Your task to perform on an android device: toggle notifications settings in the gmail app Image 0: 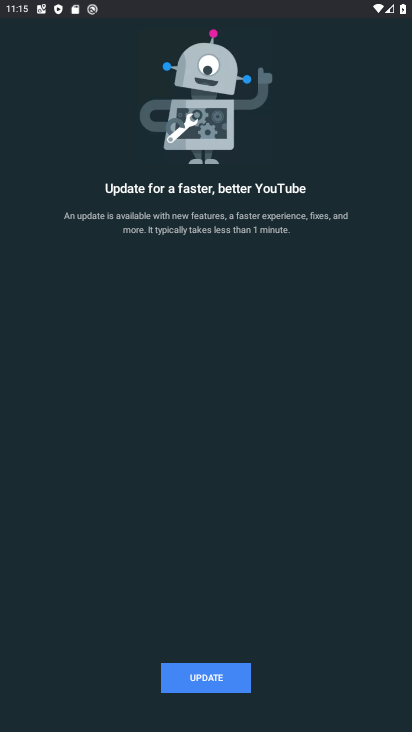
Step 0: press home button
Your task to perform on an android device: toggle notifications settings in the gmail app Image 1: 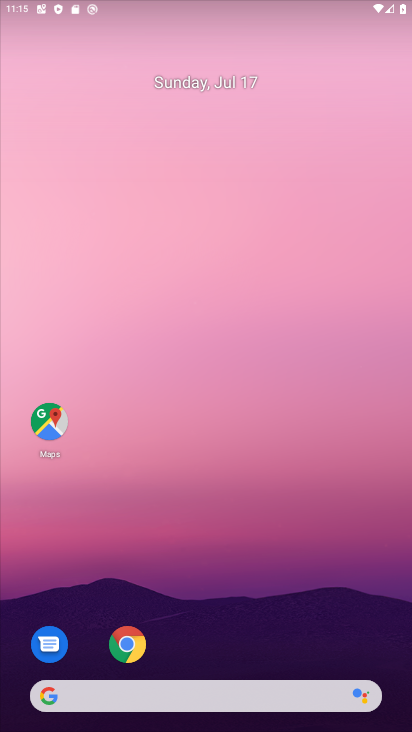
Step 1: drag from (317, 529) to (236, 129)
Your task to perform on an android device: toggle notifications settings in the gmail app Image 2: 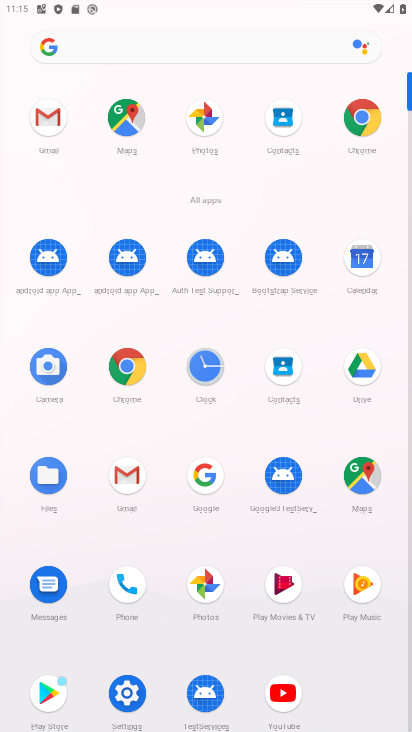
Step 2: click (59, 115)
Your task to perform on an android device: toggle notifications settings in the gmail app Image 3: 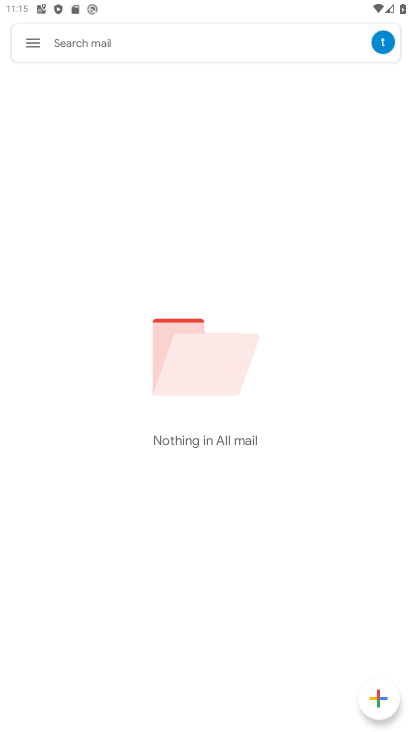
Step 3: click (18, 41)
Your task to perform on an android device: toggle notifications settings in the gmail app Image 4: 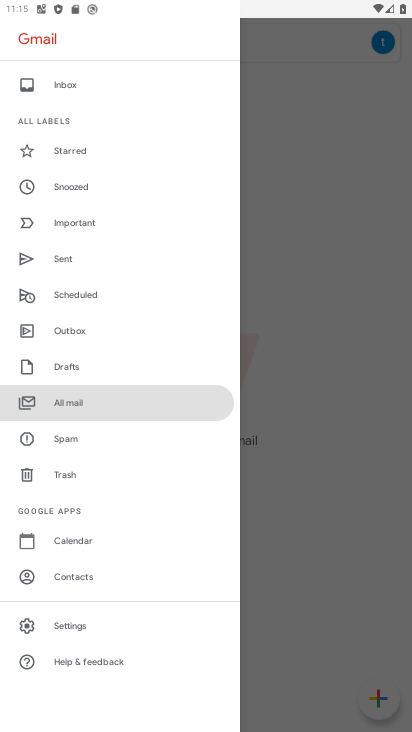
Step 4: click (66, 628)
Your task to perform on an android device: toggle notifications settings in the gmail app Image 5: 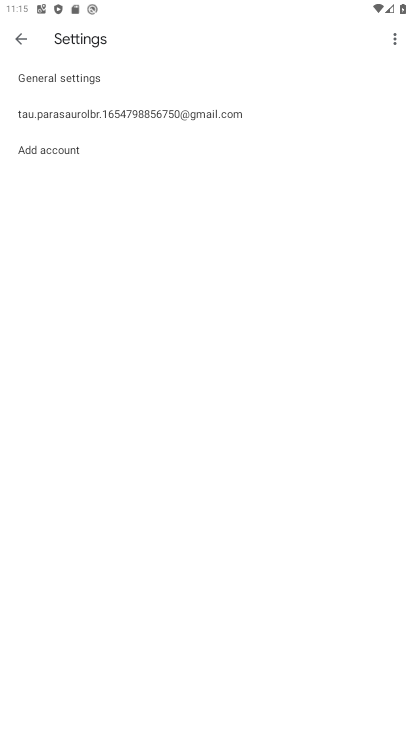
Step 5: click (194, 107)
Your task to perform on an android device: toggle notifications settings in the gmail app Image 6: 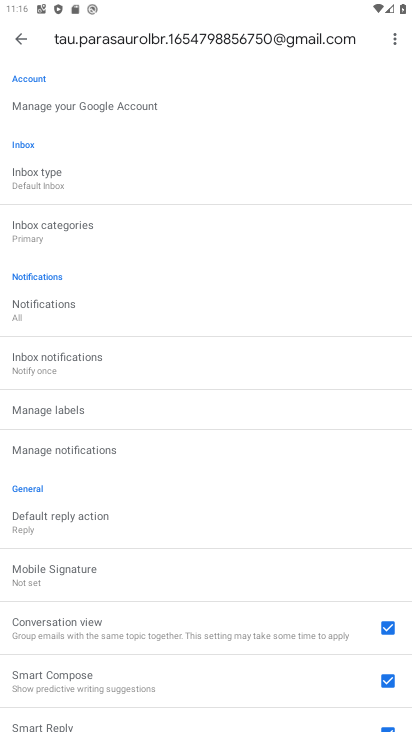
Step 6: drag from (215, 534) to (217, 696)
Your task to perform on an android device: toggle notifications settings in the gmail app Image 7: 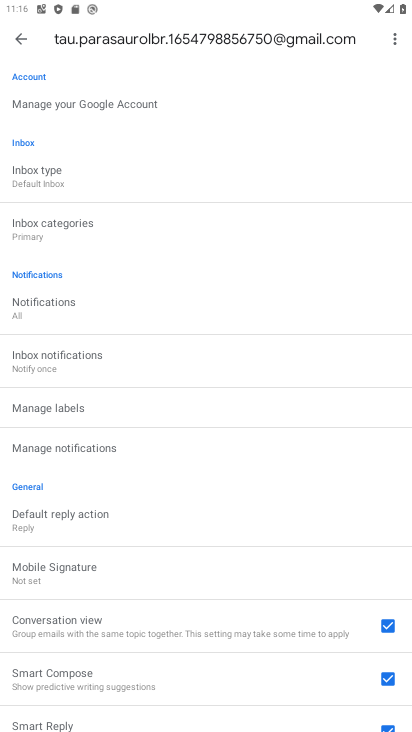
Step 7: click (80, 453)
Your task to perform on an android device: toggle notifications settings in the gmail app Image 8: 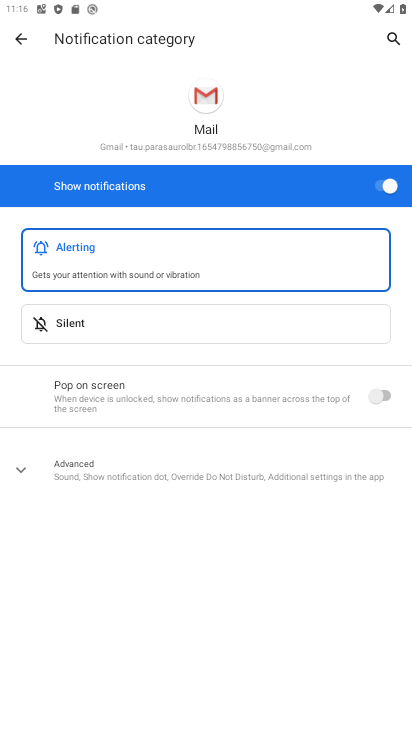
Step 8: click (370, 178)
Your task to perform on an android device: toggle notifications settings in the gmail app Image 9: 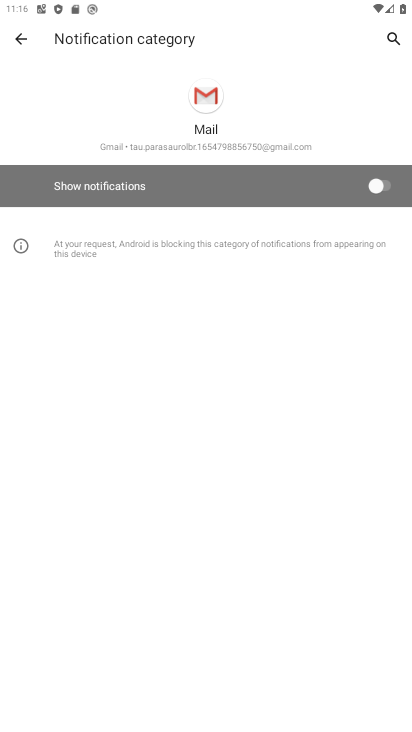
Step 9: task complete